Your task to perform on an android device: turn off priority inbox in the gmail app Image 0: 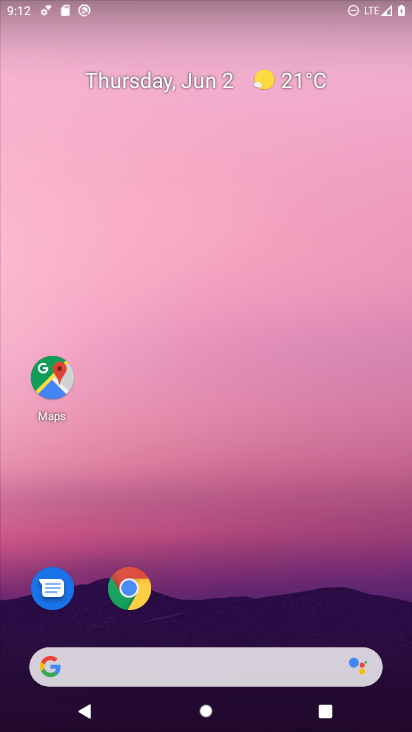
Step 0: drag from (212, 471) to (206, 371)
Your task to perform on an android device: turn off priority inbox in the gmail app Image 1: 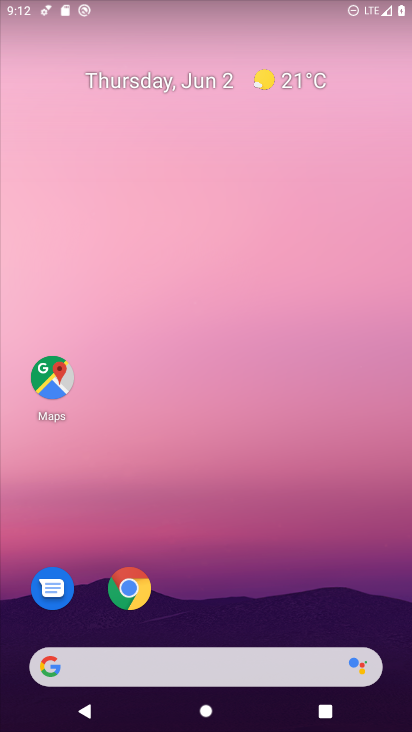
Step 1: drag from (240, 627) to (162, 224)
Your task to perform on an android device: turn off priority inbox in the gmail app Image 2: 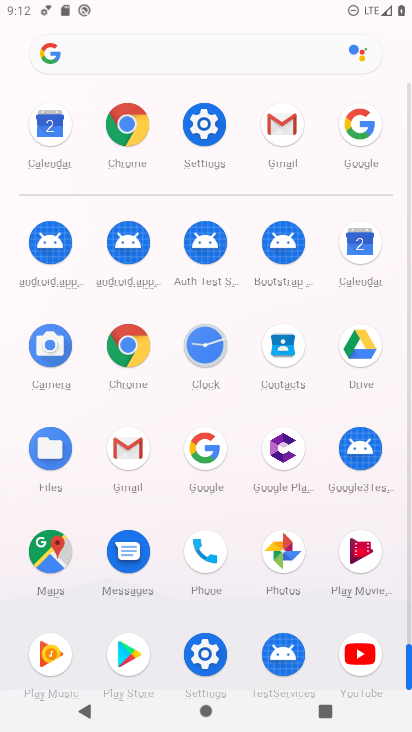
Step 2: click (137, 458)
Your task to perform on an android device: turn off priority inbox in the gmail app Image 3: 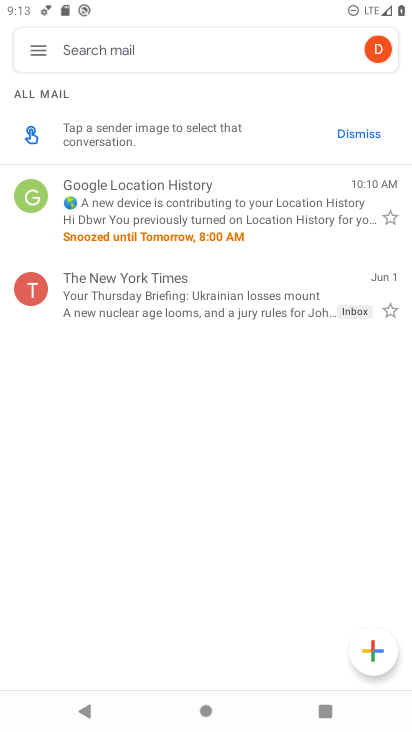
Step 3: click (40, 55)
Your task to perform on an android device: turn off priority inbox in the gmail app Image 4: 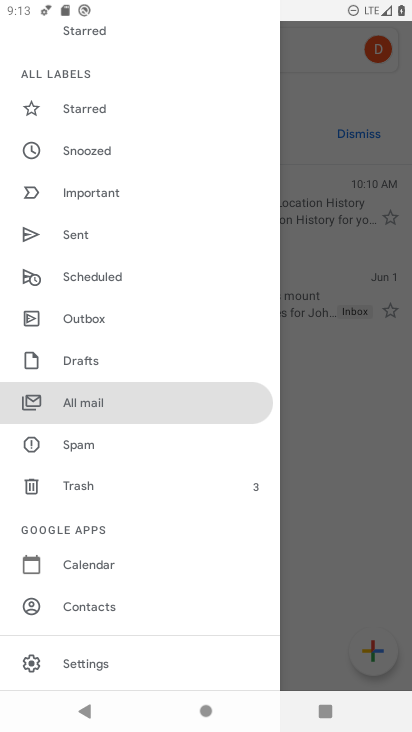
Step 4: click (106, 660)
Your task to perform on an android device: turn off priority inbox in the gmail app Image 5: 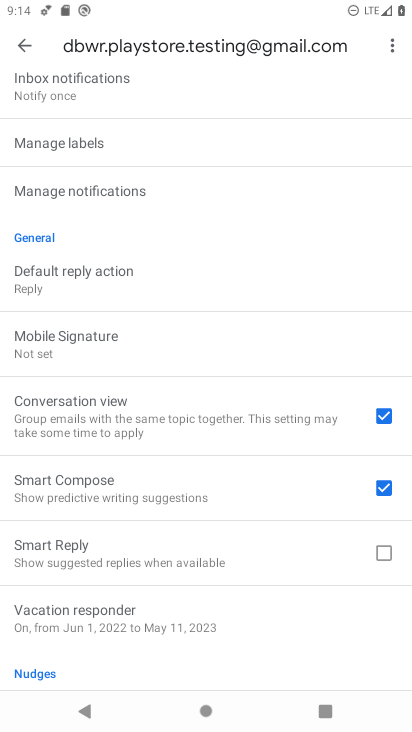
Step 5: drag from (161, 238) to (127, 594)
Your task to perform on an android device: turn off priority inbox in the gmail app Image 6: 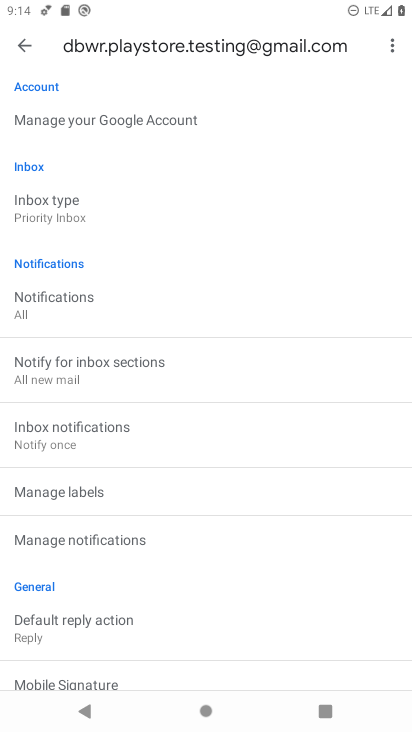
Step 6: click (107, 206)
Your task to perform on an android device: turn off priority inbox in the gmail app Image 7: 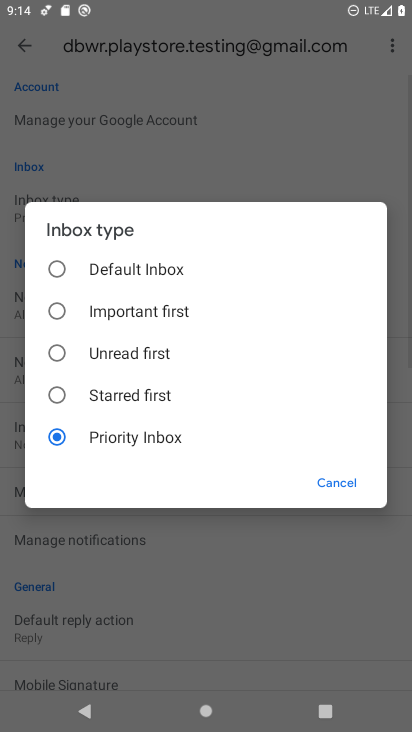
Step 7: click (107, 251)
Your task to perform on an android device: turn off priority inbox in the gmail app Image 8: 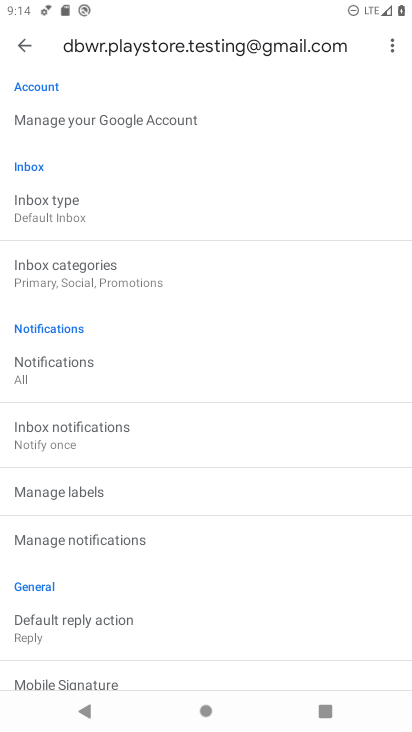
Step 8: task complete